Your task to perform on an android device: Open Google Chrome and open the bookmarks view Image 0: 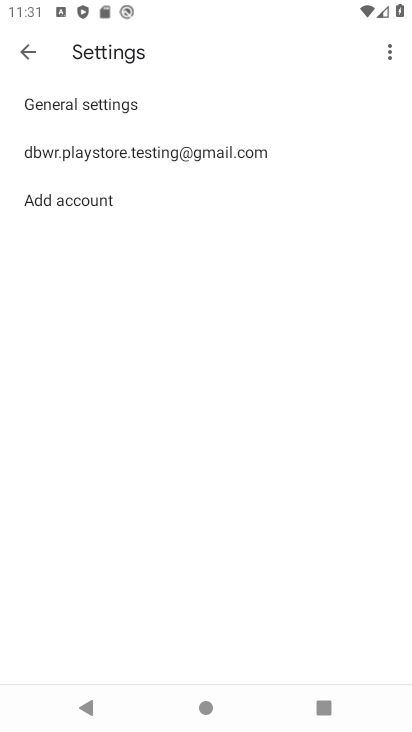
Step 0: press home button
Your task to perform on an android device: Open Google Chrome and open the bookmarks view Image 1: 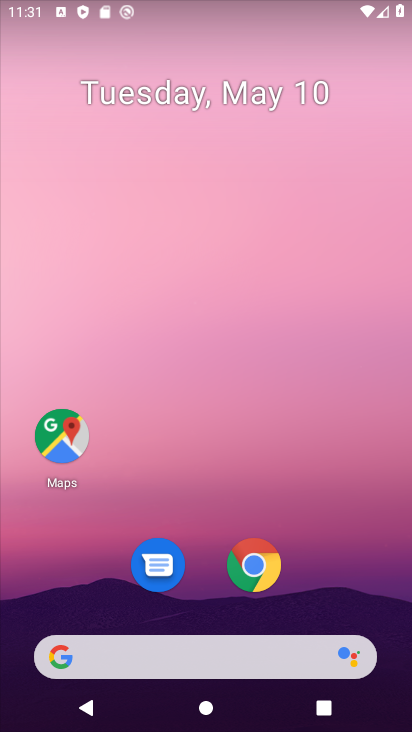
Step 1: click (242, 563)
Your task to perform on an android device: Open Google Chrome and open the bookmarks view Image 2: 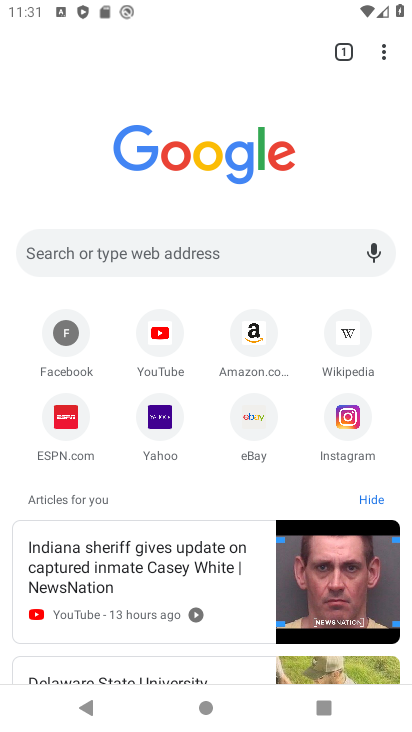
Step 2: click (379, 47)
Your task to perform on an android device: Open Google Chrome and open the bookmarks view Image 3: 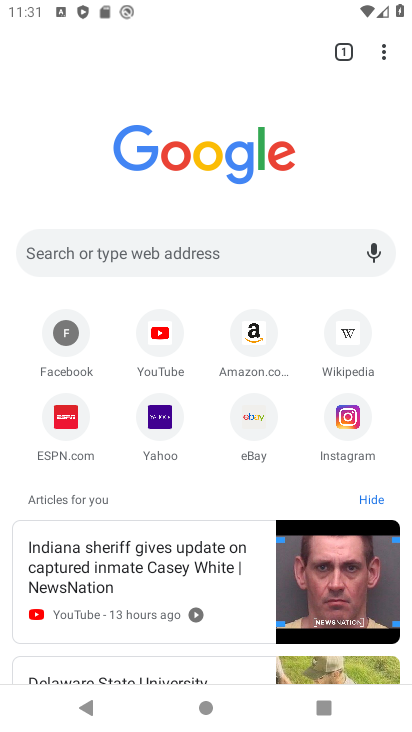
Step 3: click (376, 49)
Your task to perform on an android device: Open Google Chrome and open the bookmarks view Image 4: 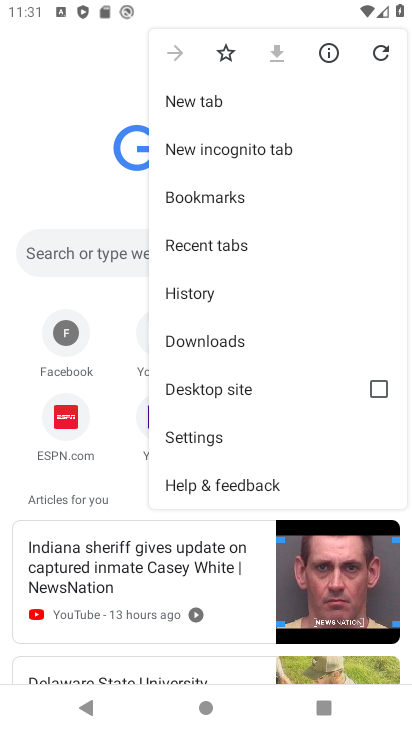
Step 4: click (221, 194)
Your task to perform on an android device: Open Google Chrome and open the bookmarks view Image 5: 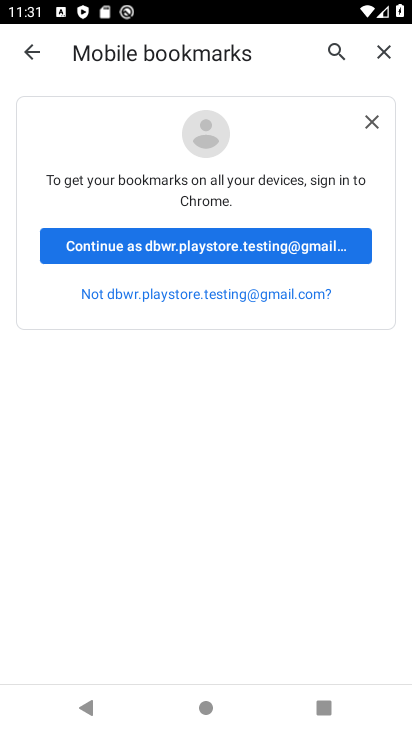
Step 5: task complete